Your task to perform on an android device: What is the news today? Image 0: 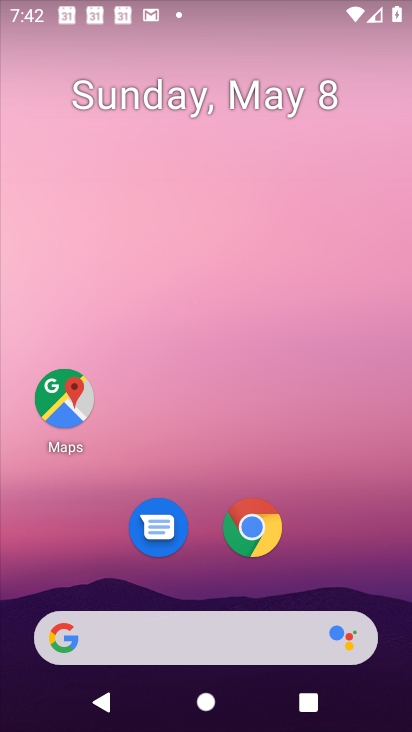
Step 0: drag from (325, 581) to (329, 108)
Your task to perform on an android device: What is the news today? Image 1: 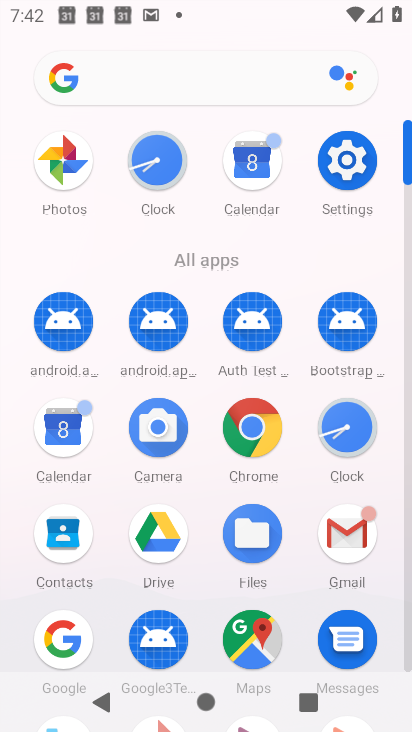
Step 1: click (135, 85)
Your task to perform on an android device: What is the news today? Image 2: 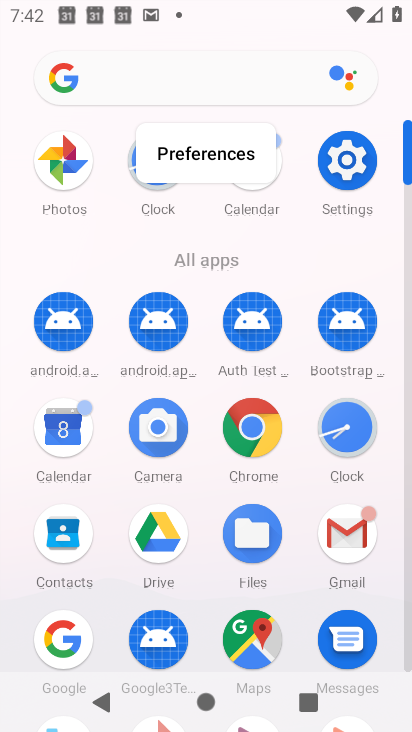
Step 2: click (115, 86)
Your task to perform on an android device: What is the news today? Image 3: 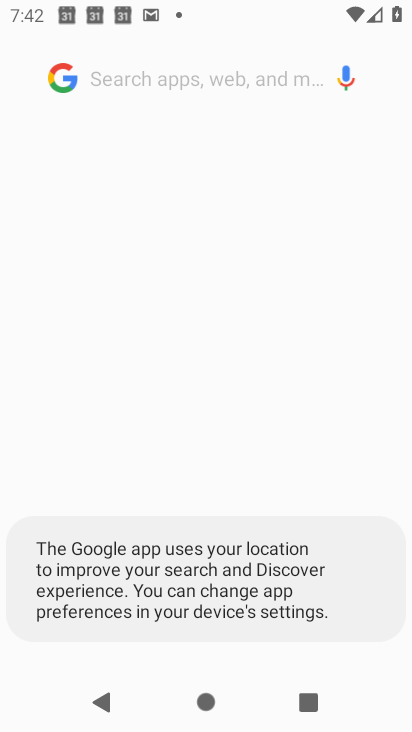
Step 3: click (102, 85)
Your task to perform on an android device: What is the news today? Image 4: 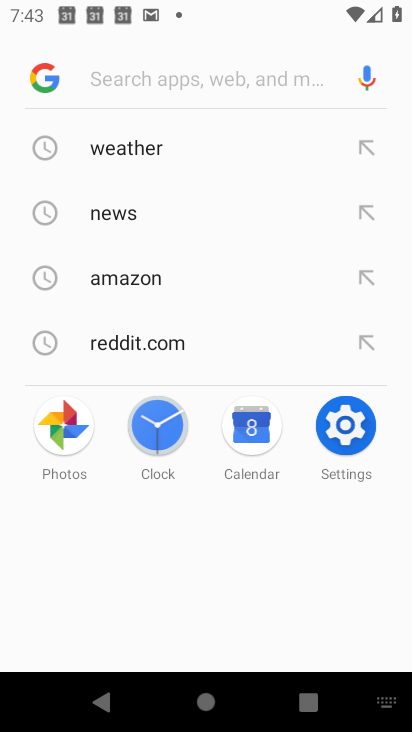
Step 4: type "what is the new today"
Your task to perform on an android device: What is the news today? Image 5: 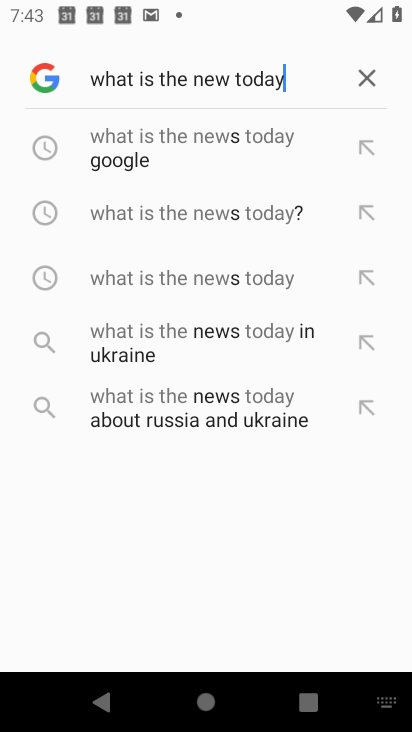
Step 5: click (271, 216)
Your task to perform on an android device: What is the news today? Image 6: 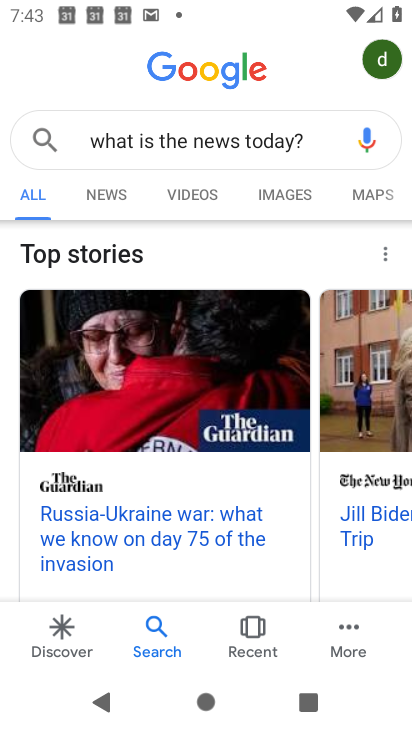
Step 6: click (109, 194)
Your task to perform on an android device: What is the news today? Image 7: 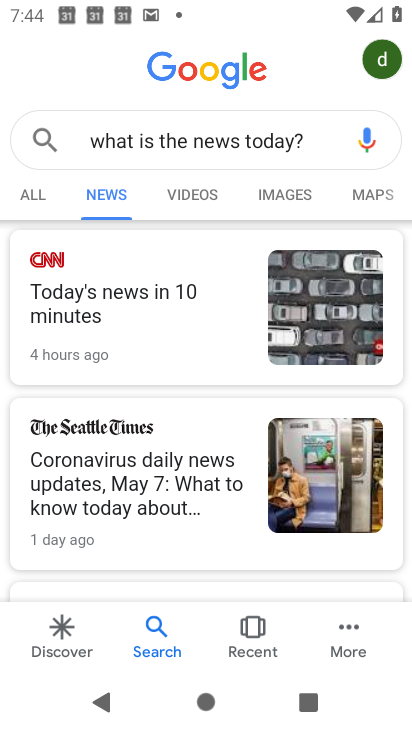
Step 7: task complete